Your task to perform on an android device: Go to Maps Image 0: 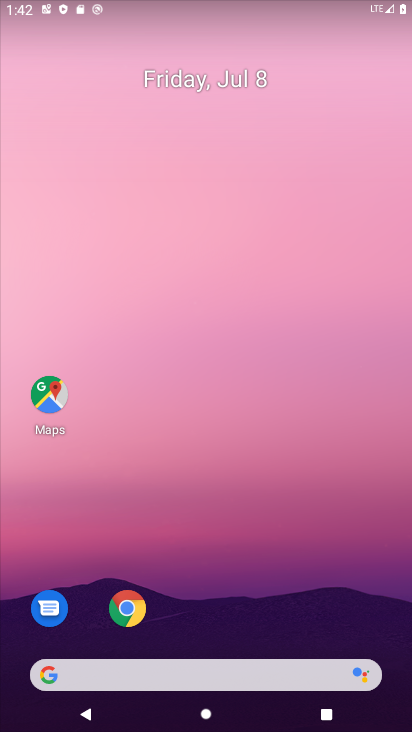
Step 0: click (47, 394)
Your task to perform on an android device: Go to Maps Image 1: 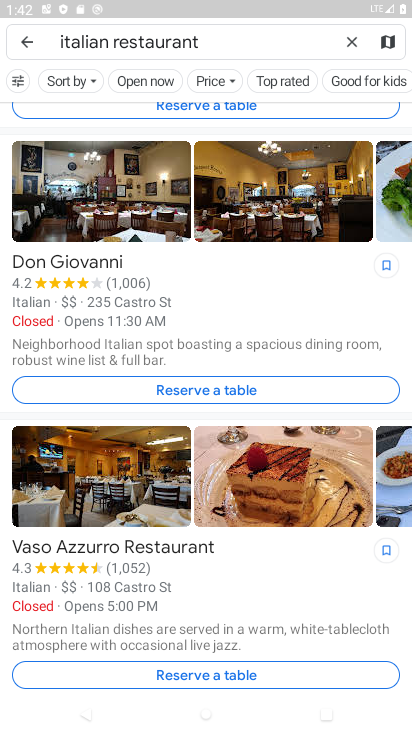
Step 1: click (352, 37)
Your task to perform on an android device: Go to Maps Image 2: 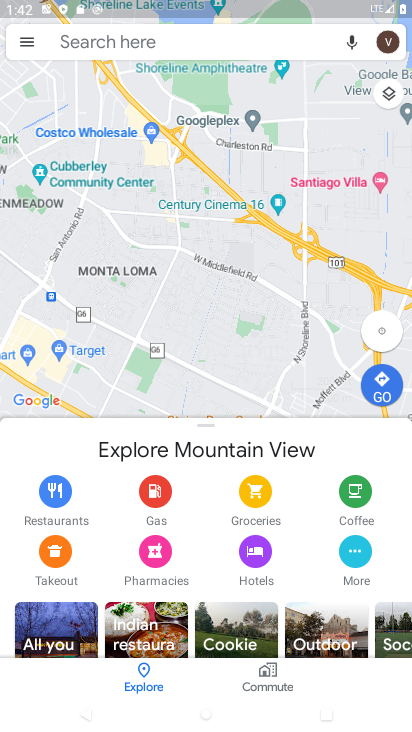
Step 2: task complete